Your task to perform on an android device: Go to CNN.com Image 0: 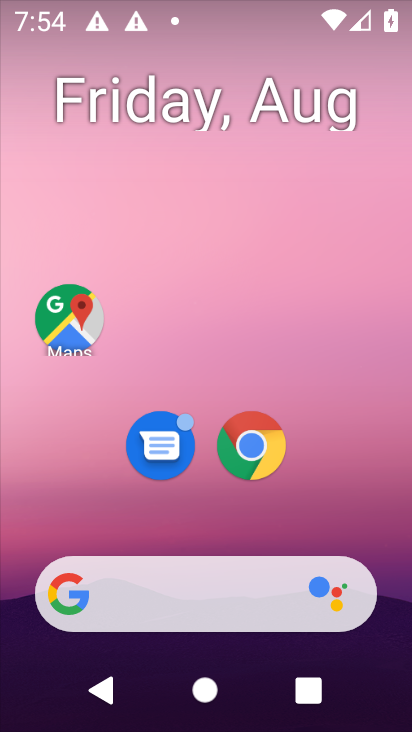
Step 0: click (248, 437)
Your task to perform on an android device: Go to CNN.com Image 1: 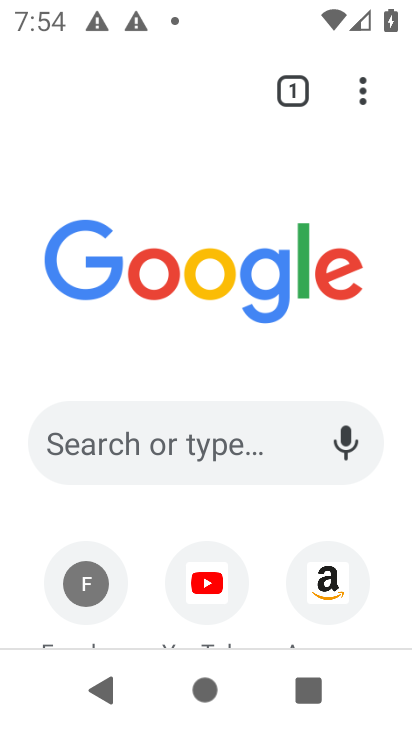
Step 1: click (164, 442)
Your task to perform on an android device: Go to CNN.com Image 2: 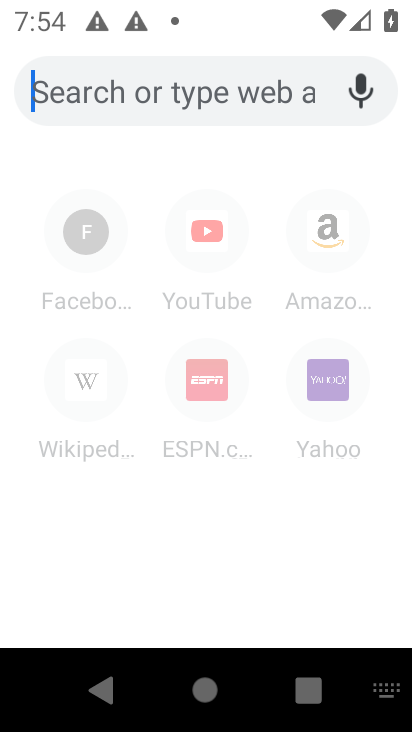
Step 2: type "CNN.com"
Your task to perform on an android device: Go to CNN.com Image 3: 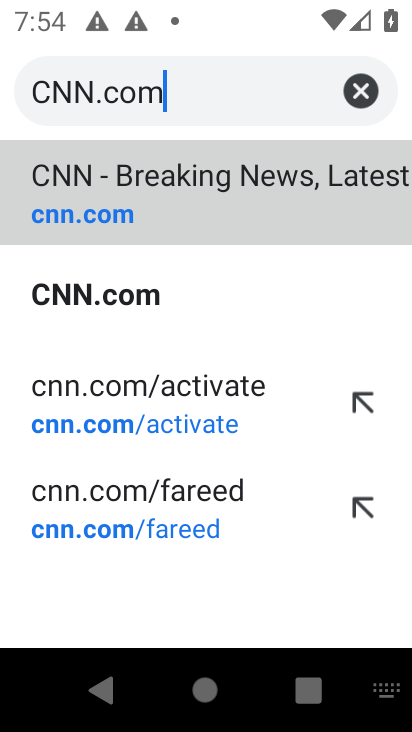
Step 3: type ""
Your task to perform on an android device: Go to CNN.com Image 4: 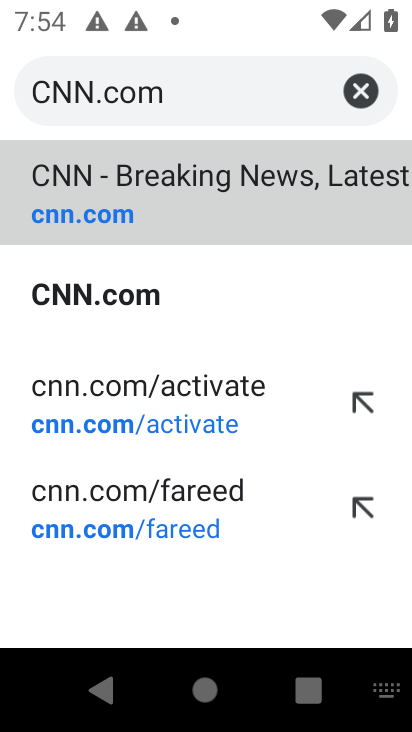
Step 4: click (262, 189)
Your task to perform on an android device: Go to CNN.com Image 5: 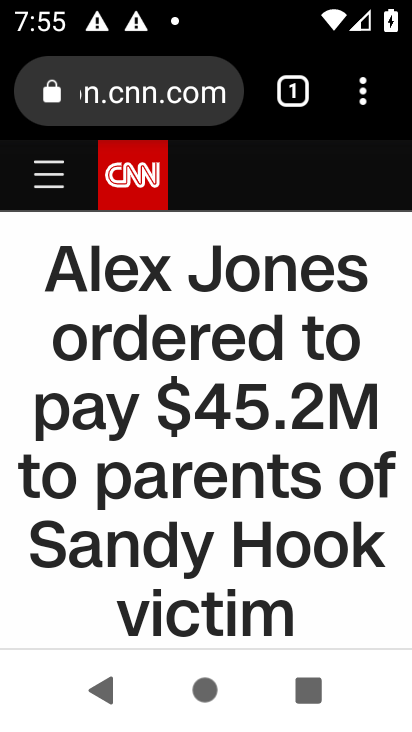
Step 5: task complete